Your task to perform on an android device: Go to Google maps Image 0: 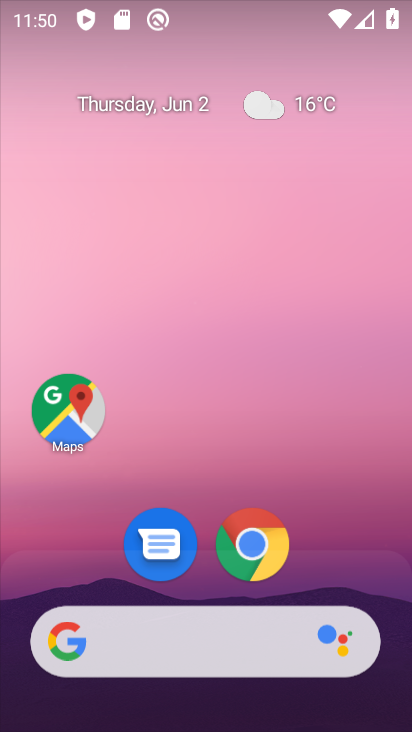
Step 0: press home button
Your task to perform on an android device: Go to Google maps Image 1: 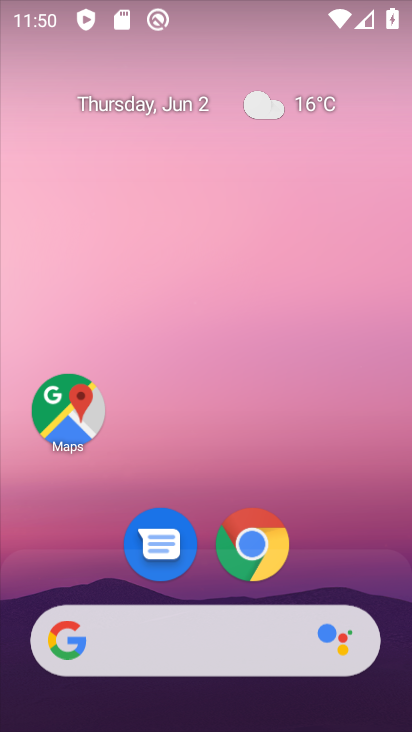
Step 1: drag from (410, 506) to (395, 166)
Your task to perform on an android device: Go to Google maps Image 2: 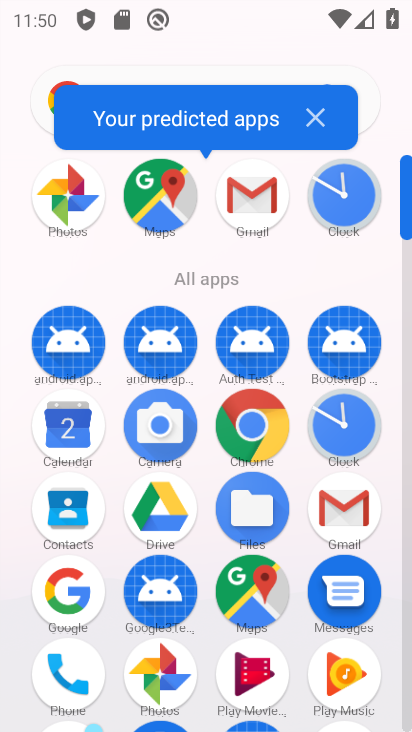
Step 2: drag from (275, 572) to (291, 346)
Your task to perform on an android device: Go to Google maps Image 3: 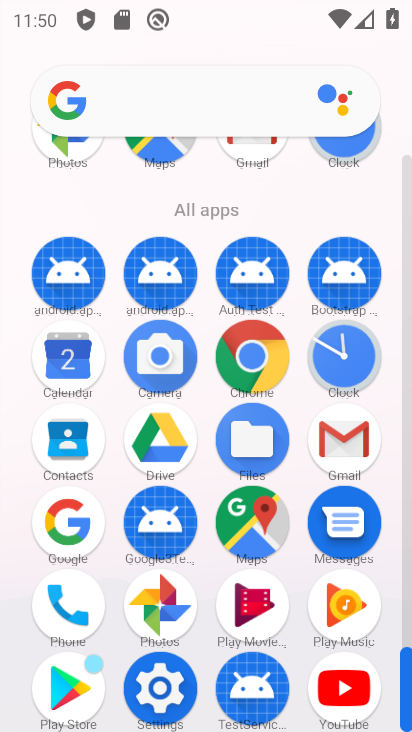
Step 3: click (236, 525)
Your task to perform on an android device: Go to Google maps Image 4: 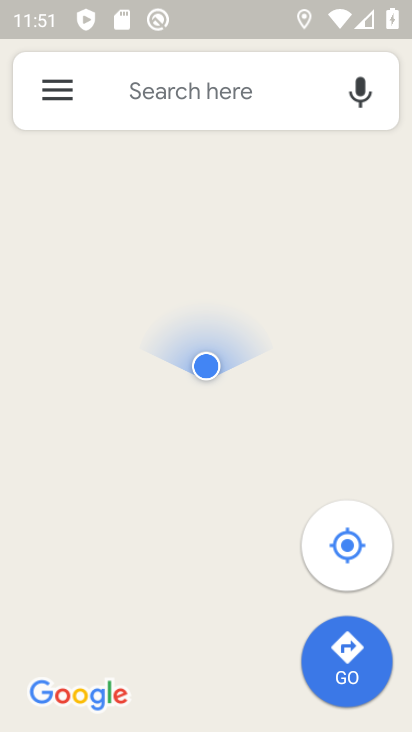
Step 4: click (218, 89)
Your task to perform on an android device: Go to Google maps Image 5: 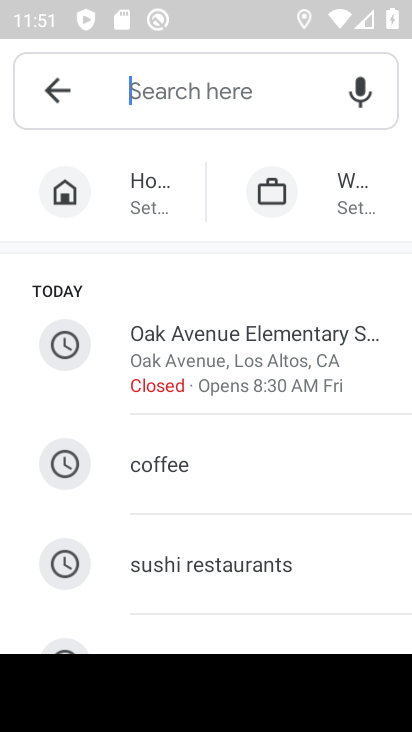
Step 5: task complete